Your task to perform on an android device: Turn on the flashlight Image 0: 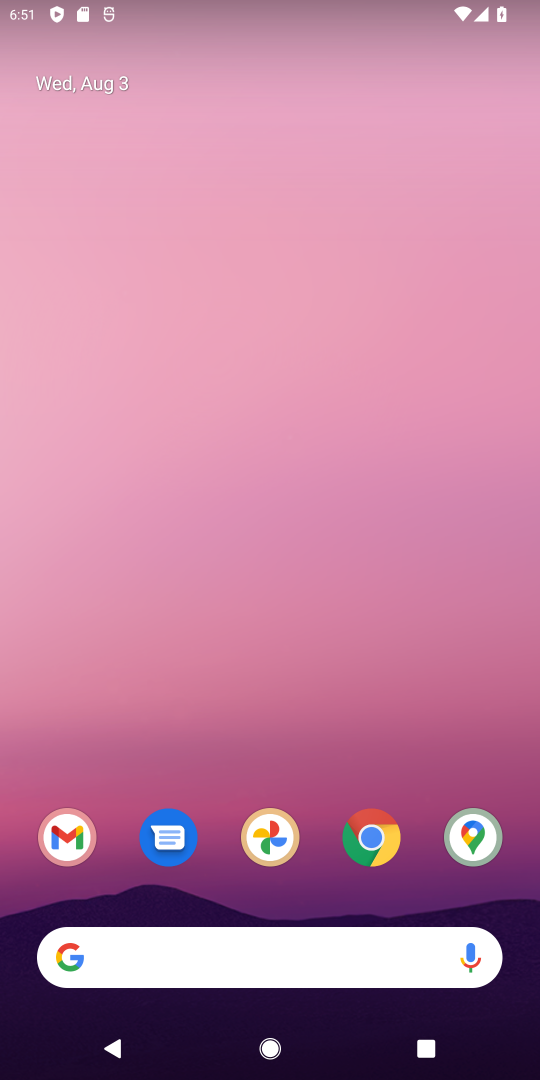
Step 0: press home button
Your task to perform on an android device: Turn on the flashlight Image 1: 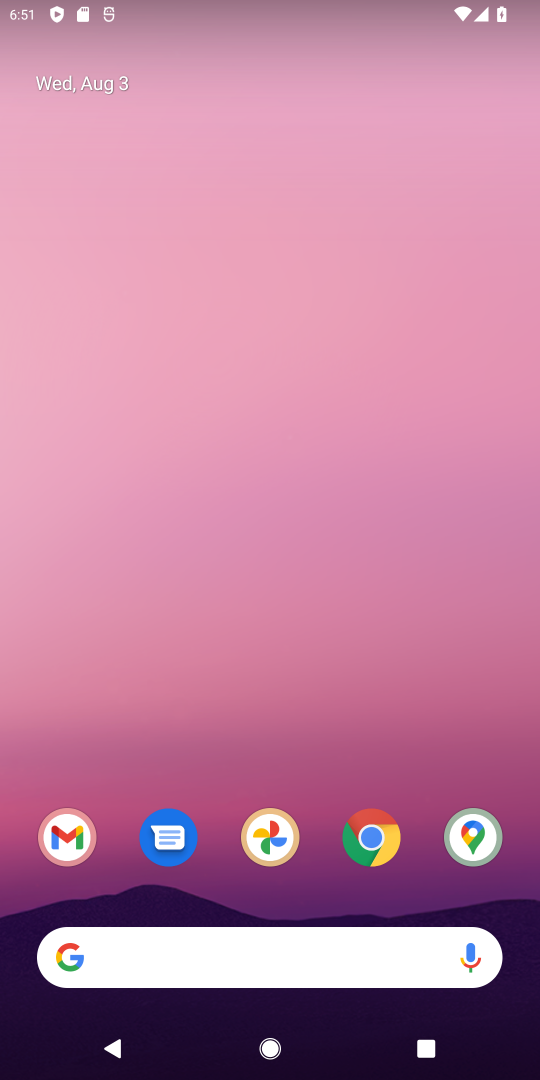
Step 1: drag from (354, 7) to (354, 513)
Your task to perform on an android device: Turn on the flashlight Image 2: 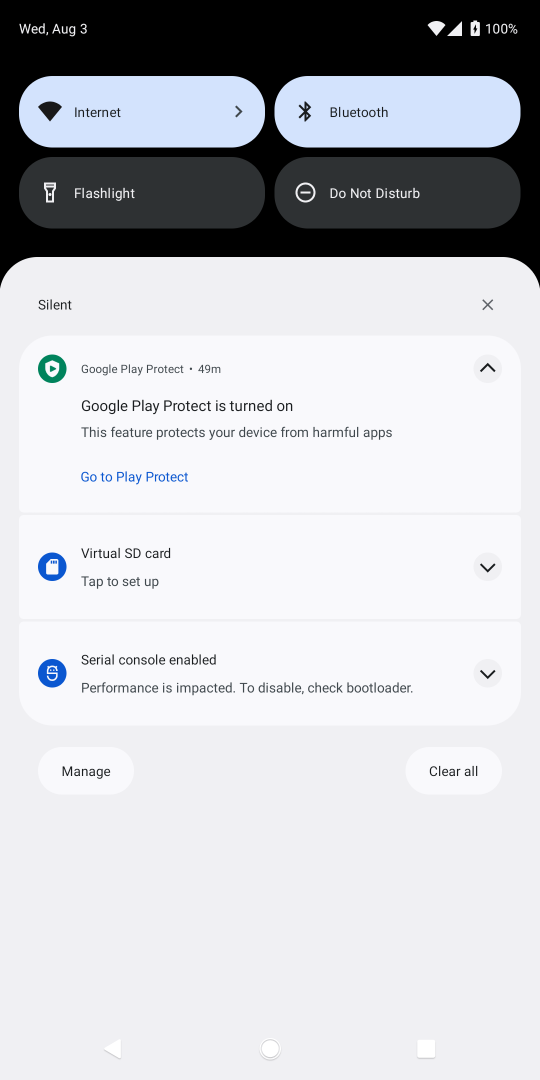
Step 2: click (457, 774)
Your task to perform on an android device: Turn on the flashlight Image 3: 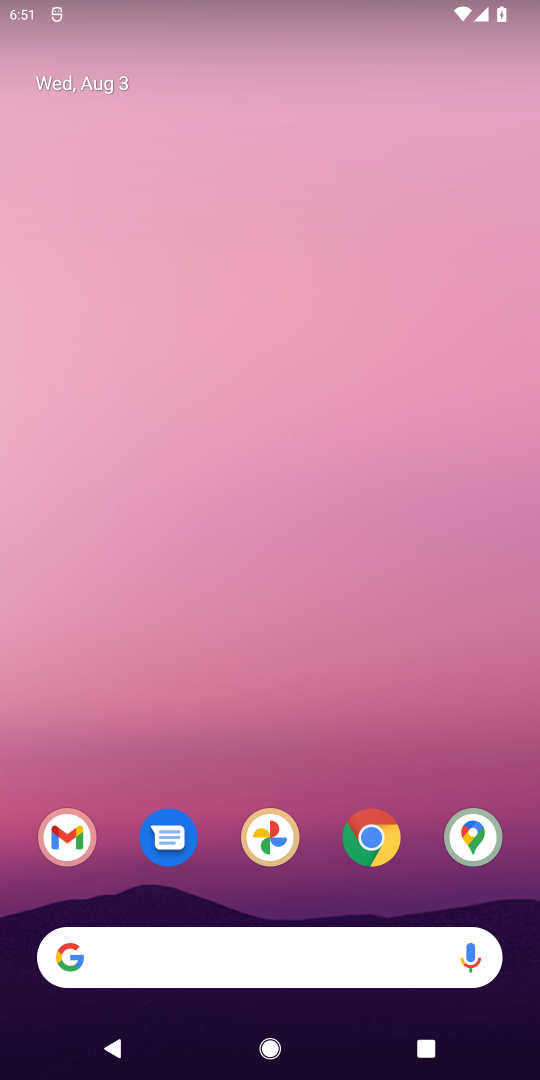
Step 3: drag from (214, 96) to (242, 606)
Your task to perform on an android device: Turn on the flashlight Image 4: 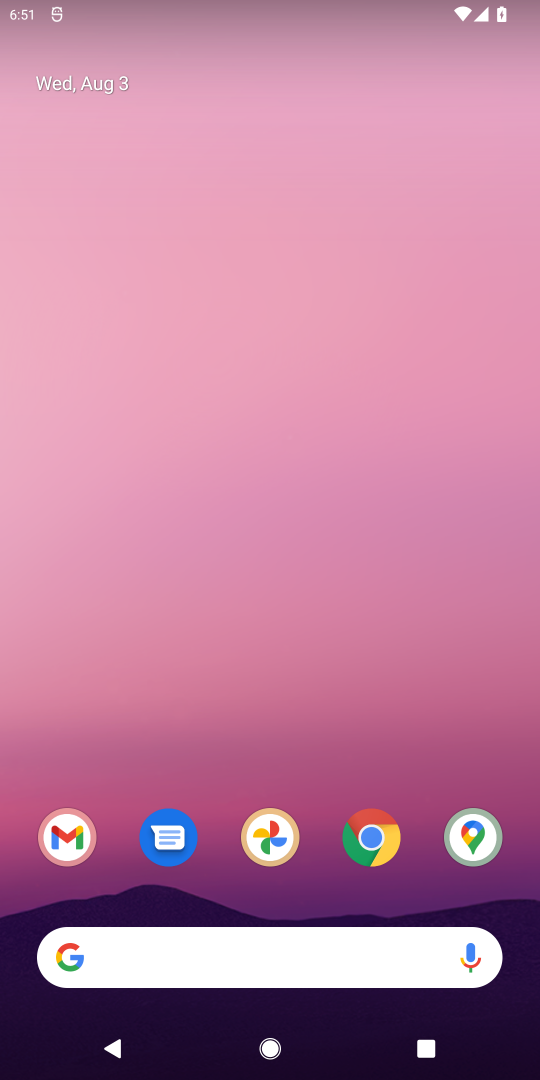
Step 4: drag from (290, 9) to (265, 662)
Your task to perform on an android device: Turn on the flashlight Image 5: 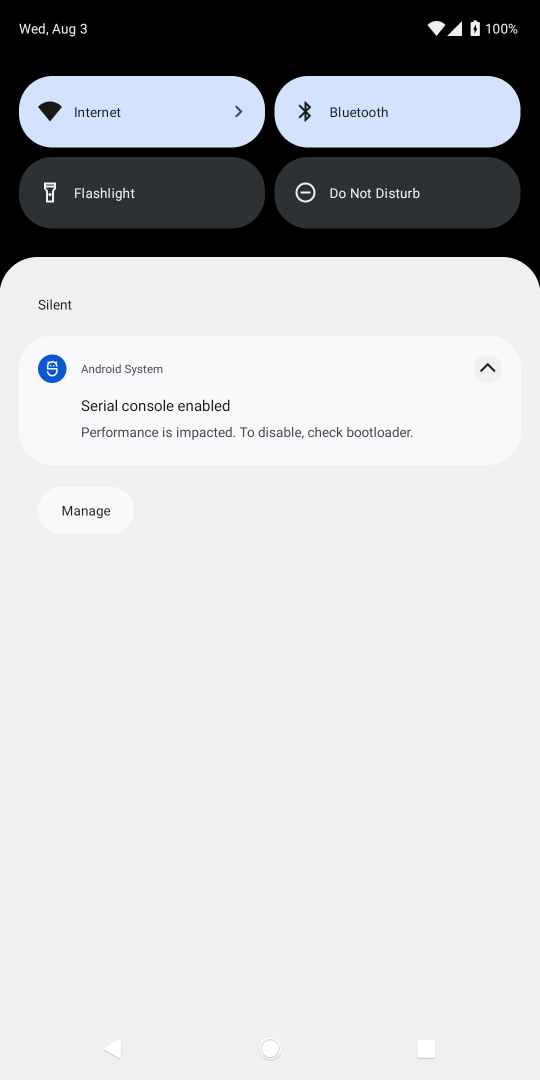
Step 5: click (100, 198)
Your task to perform on an android device: Turn on the flashlight Image 6: 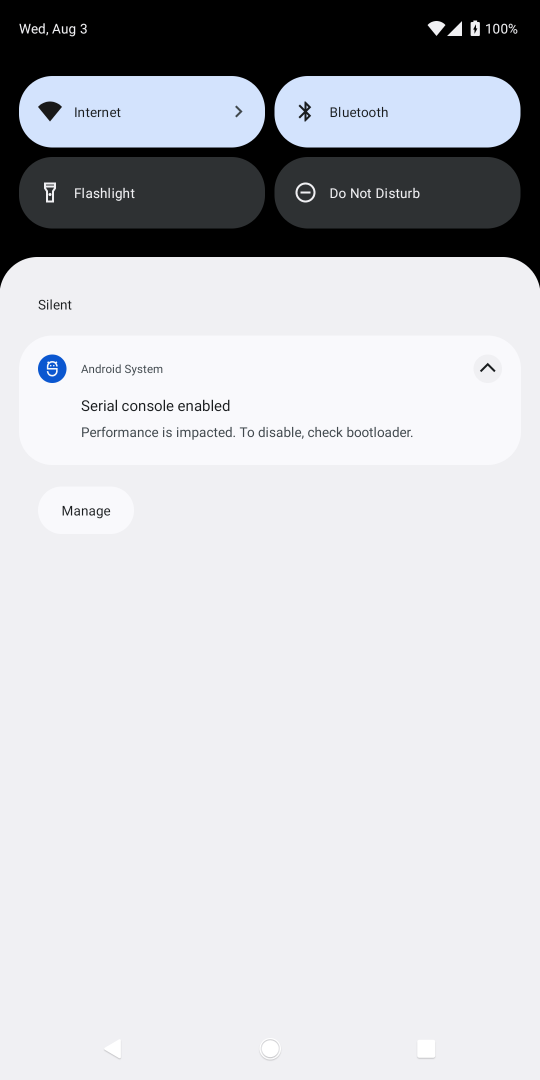
Step 6: click (100, 198)
Your task to perform on an android device: Turn on the flashlight Image 7: 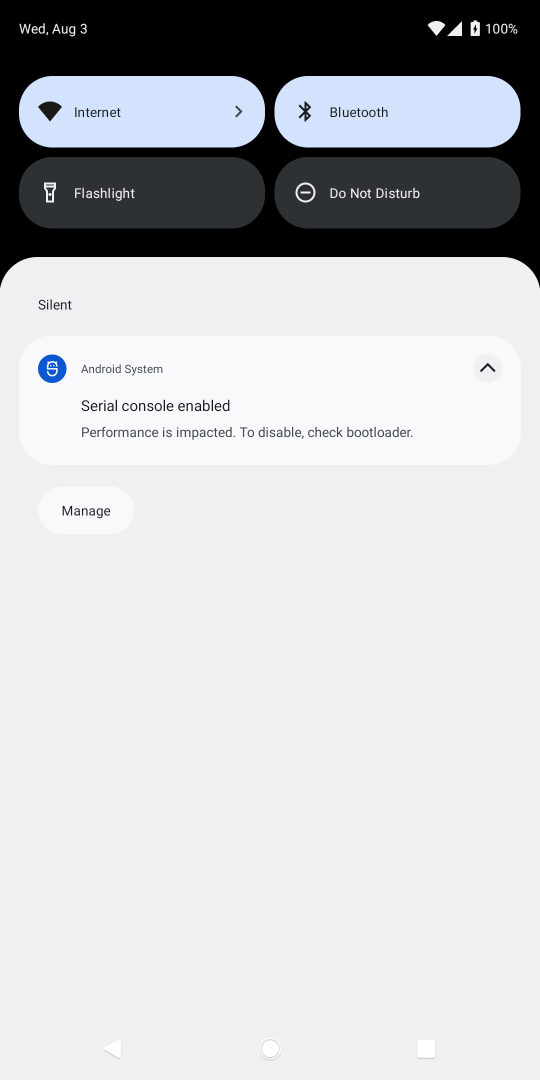
Step 7: click (98, 184)
Your task to perform on an android device: Turn on the flashlight Image 8: 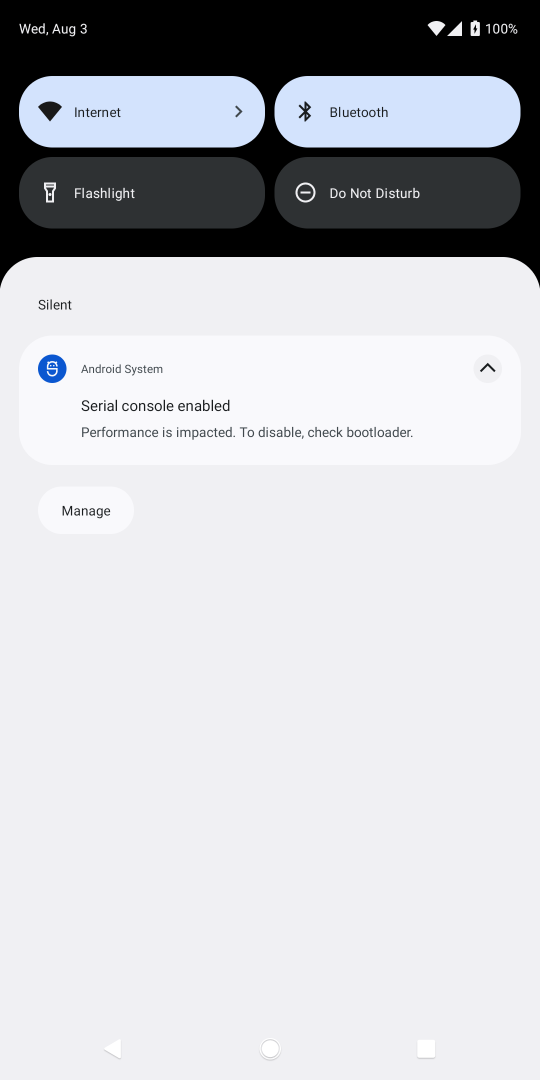
Step 8: click (165, 192)
Your task to perform on an android device: Turn on the flashlight Image 9: 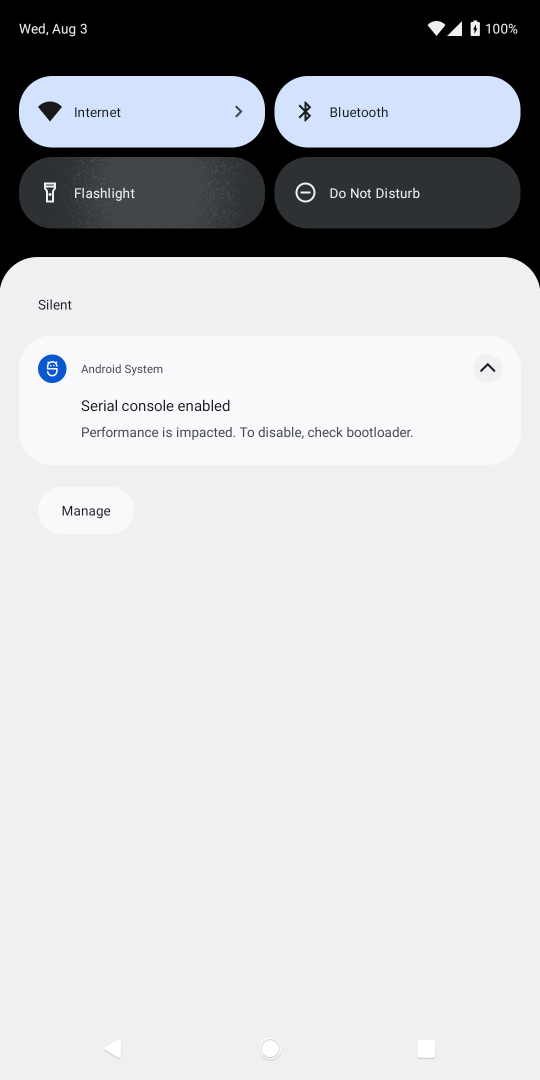
Step 9: click (165, 192)
Your task to perform on an android device: Turn on the flashlight Image 10: 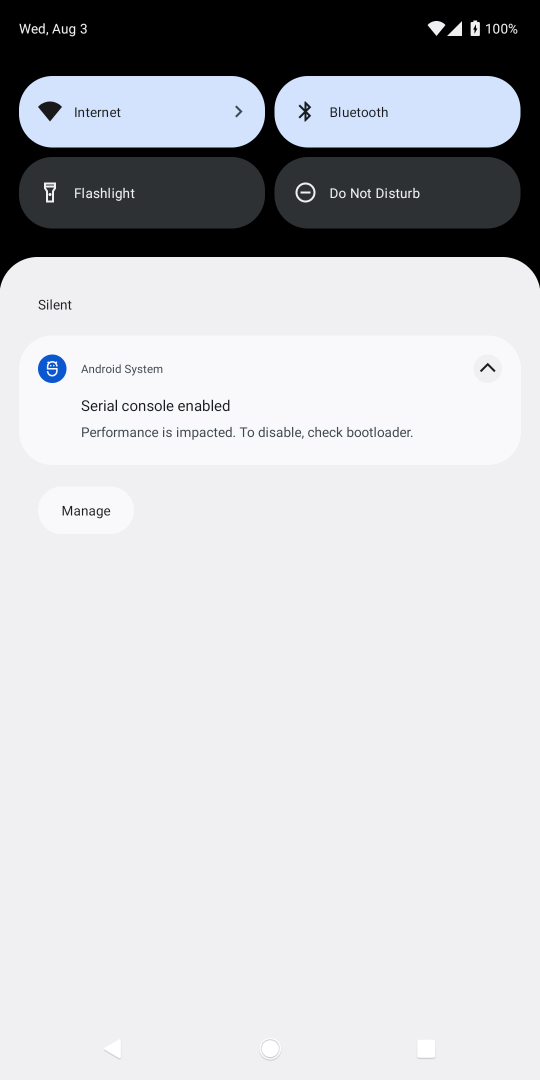
Step 10: task complete